Your task to perform on an android device: Go to Wikipedia Image 0: 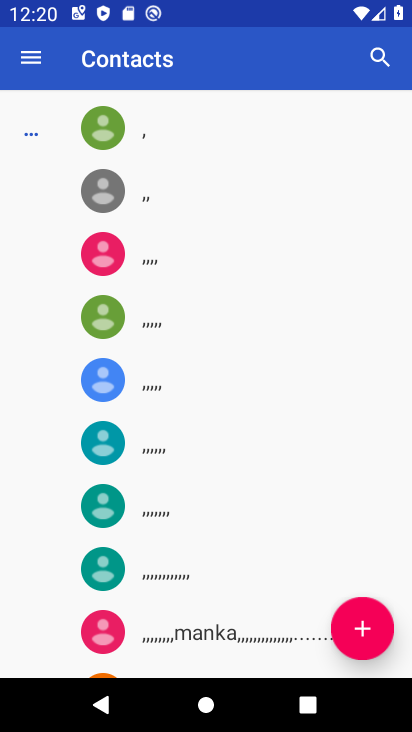
Step 0: press home button
Your task to perform on an android device: Go to Wikipedia Image 1: 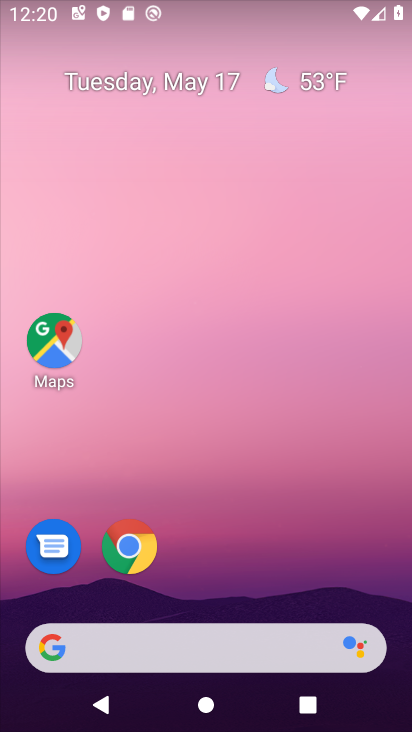
Step 1: click (118, 553)
Your task to perform on an android device: Go to Wikipedia Image 2: 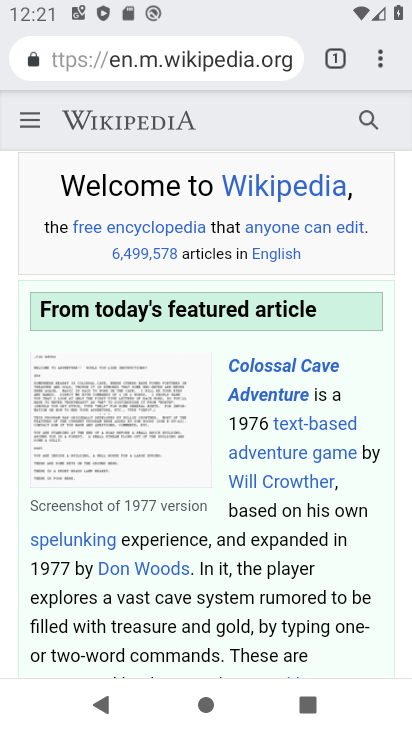
Step 2: task complete